Your task to perform on an android device: change alarm snooze length Image 0: 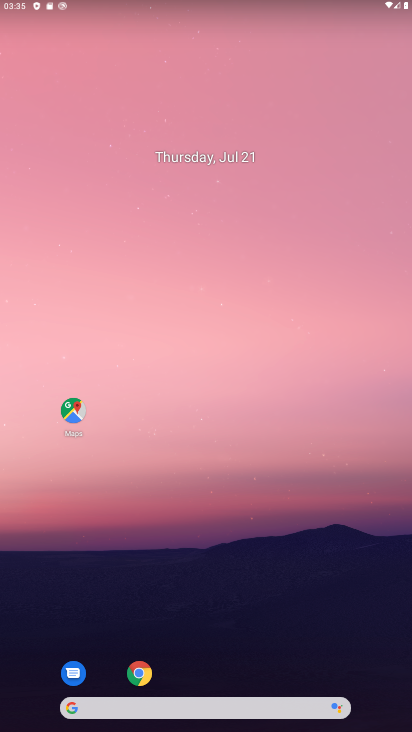
Step 0: drag from (321, 639) to (303, 63)
Your task to perform on an android device: change alarm snooze length Image 1: 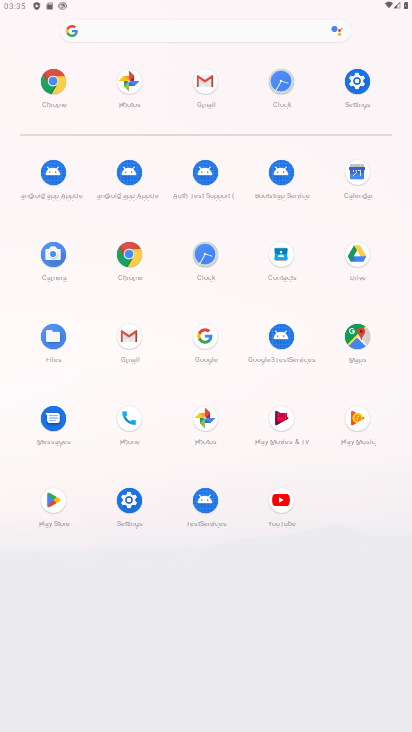
Step 1: click (204, 258)
Your task to perform on an android device: change alarm snooze length Image 2: 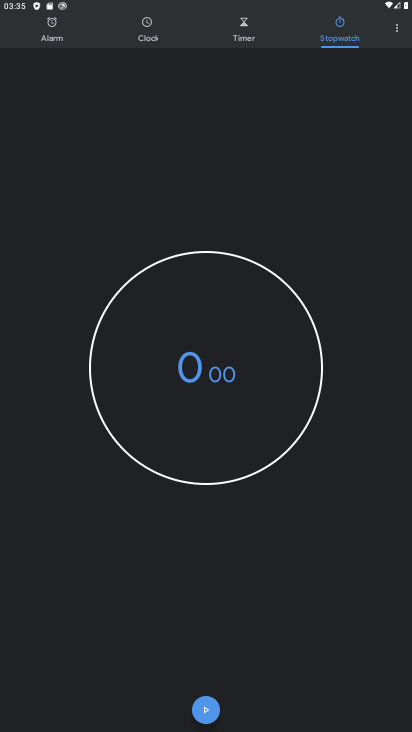
Step 2: click (403, 28)
Your task to perform on an android device: change alarm snooze length Image 3: 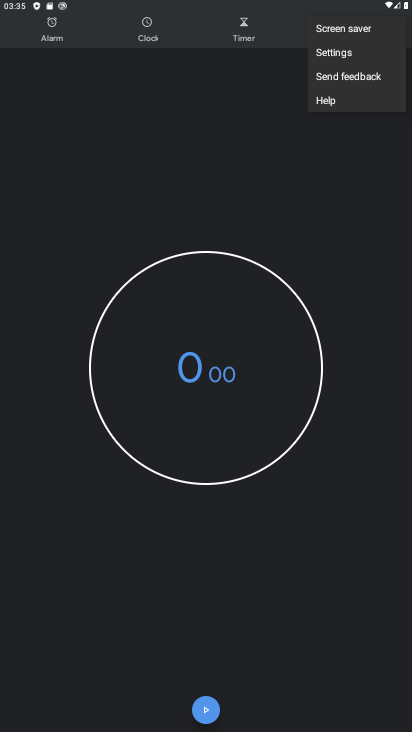
Step 3: click (358, 50)
Your task to perform on an android device: change alarm snooze length Image 4: 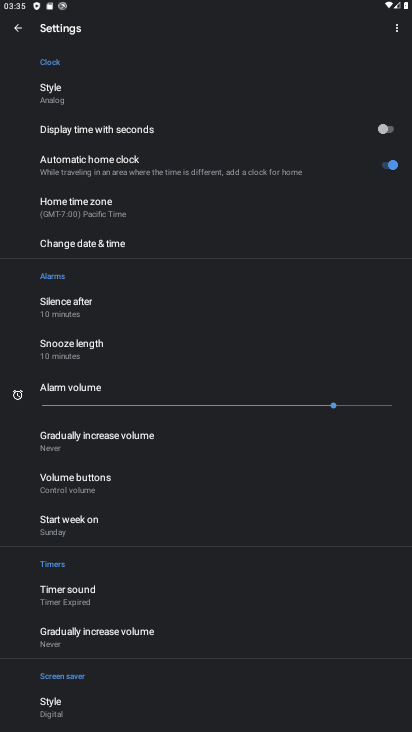
Step 4: click (101, 344)
Your task to perform on an android device: change alarm snooze length Image 5: 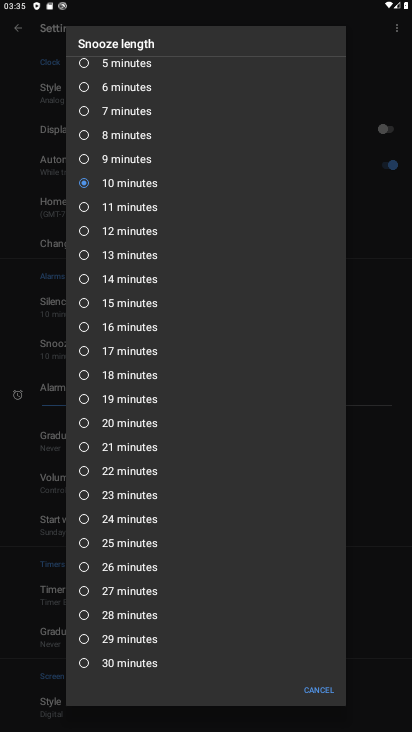
Step 5: click (115, 209)
Your task to perform on an android device: change alarm snooze length Image 6: 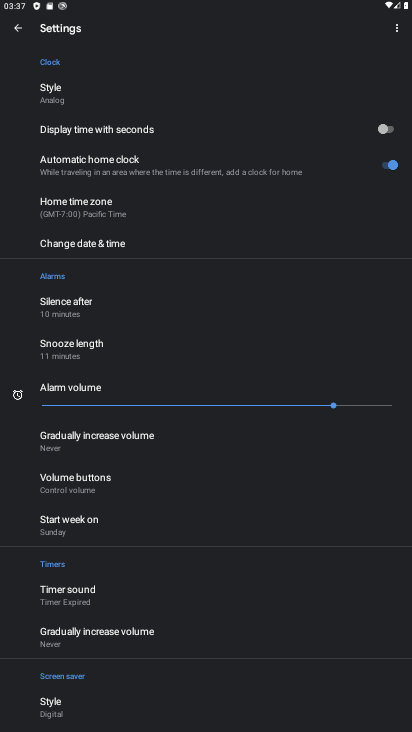
Step 6: task complete